Your task to perform on an android device: turn off sleep mode Image 0: 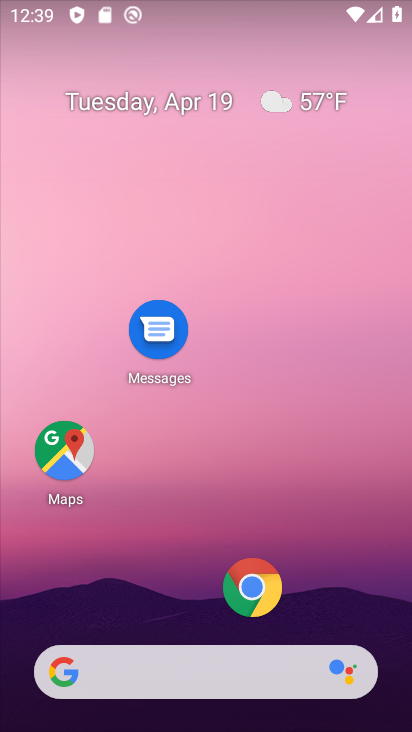
Step 0: drag from (188, 568) to (194, 133)
Your task to perform on an android device: turn off sleep mode Image 1: 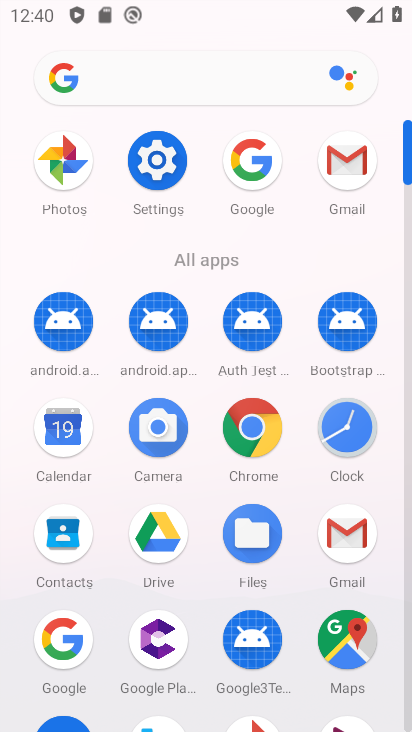
Step 1: click (153, 155)
Your task to perform on an android device: turn off sleep mode Image 2: 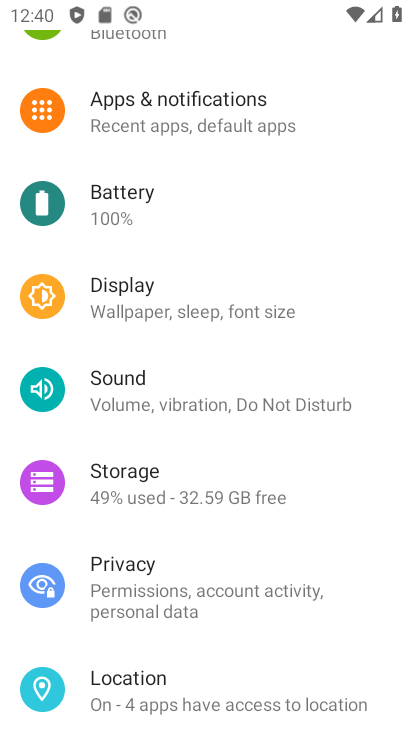
Step 2: click (123, 293)
Your task to perform on an android device: turn off sleep mode Image 3: 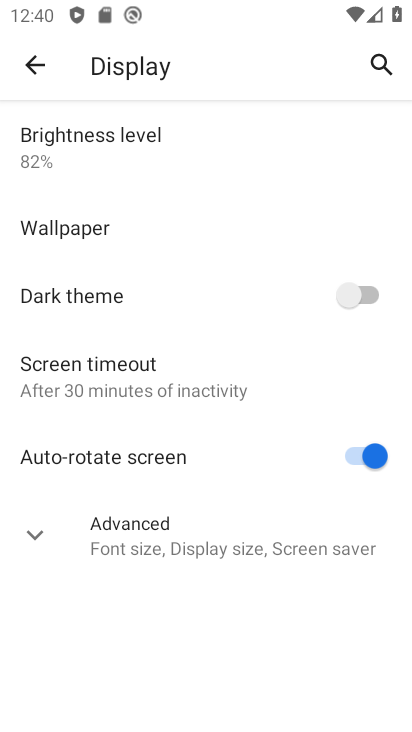
Step 3: drag from (155, 540) to (7, 660)
Your task to perform on an android device: turn off sleep mode Image 4: 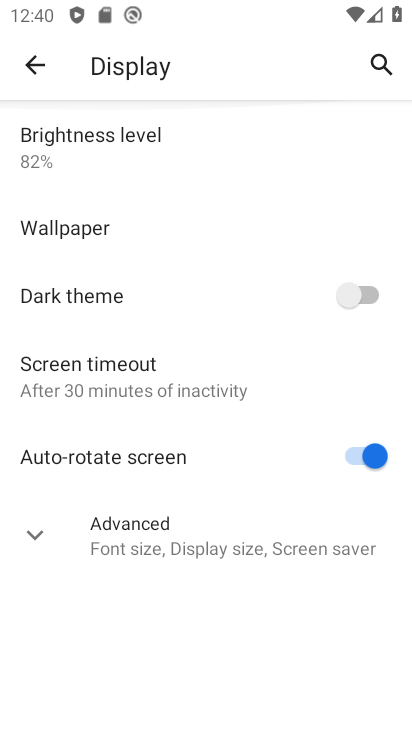
Step 4: click (79, 381)
Your task to perform on an android device: turn off sleep mode Image 5: 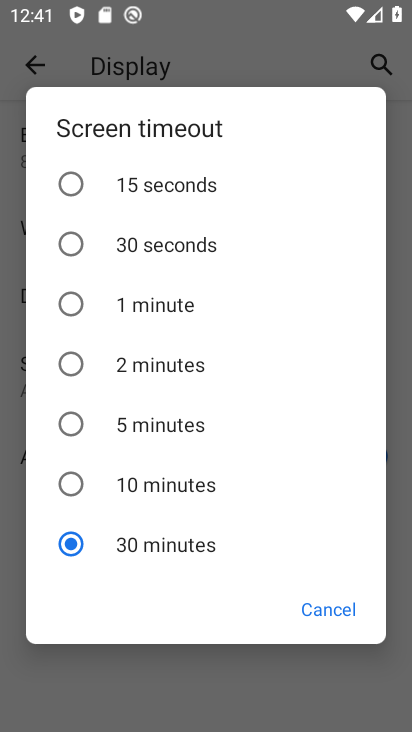
Step 5: task complete